Your task to perform on an android device: see creations saved in the google photos Image 0: 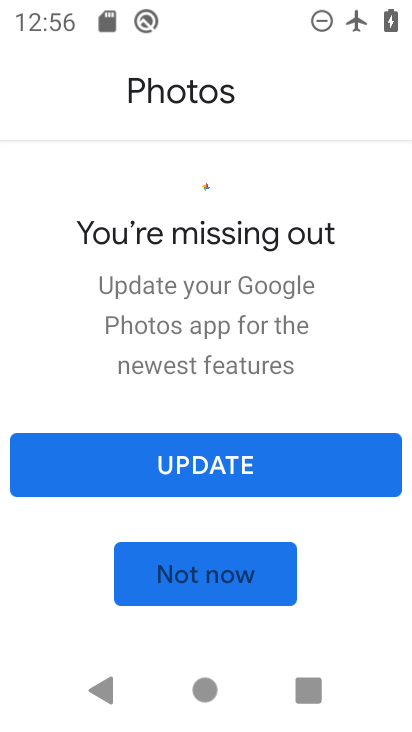
Step 0: press home button
Your task to perform on an android device: see creations saved in the google photos Image 1: 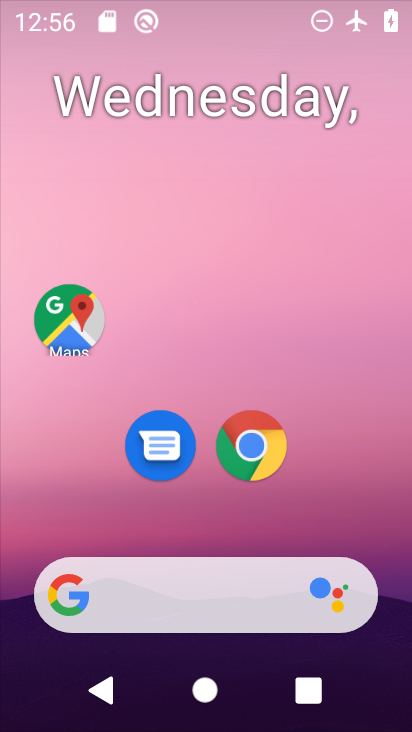
Step 1: drag from (387, 636) to (282, 45)
Your task to perform on an android device: see creations saved in the google photos Image 2: 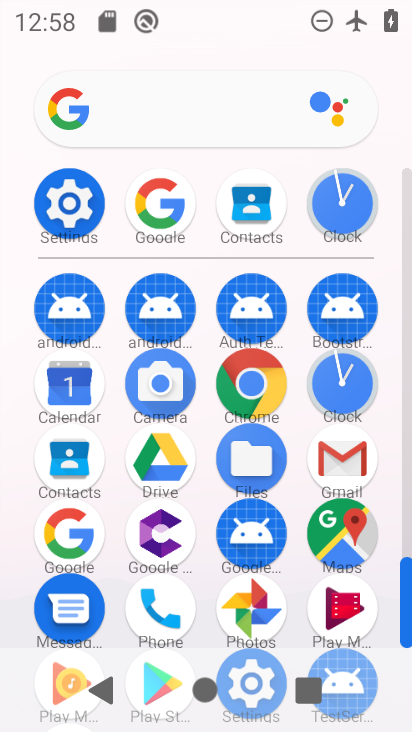
Step 2: click (261, 607)
Your task to perform on an android device: see creations saved in the google photos Image 3: 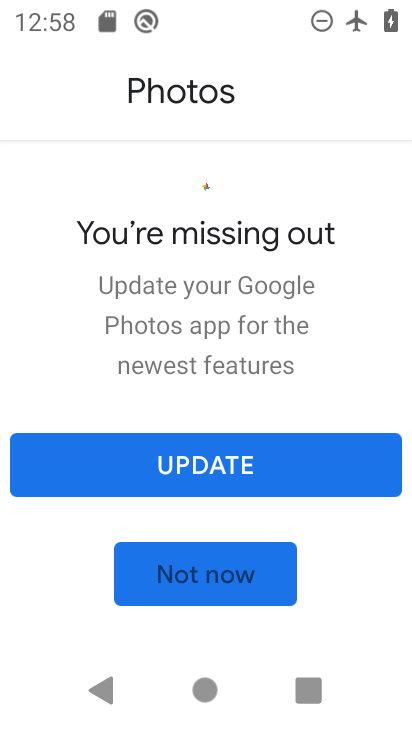
Step 3: click (264, 456)
Your task to perform on an android device: see creations saved in the google photos Image 4: 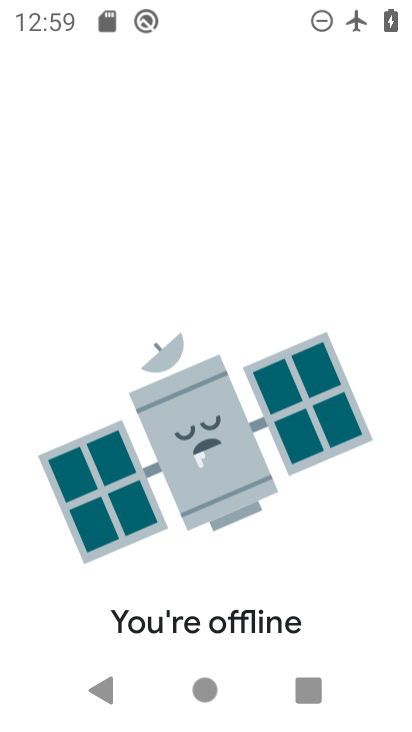
Step 4: task complete